Your task to perform on an android device: Open location settings Image 0: 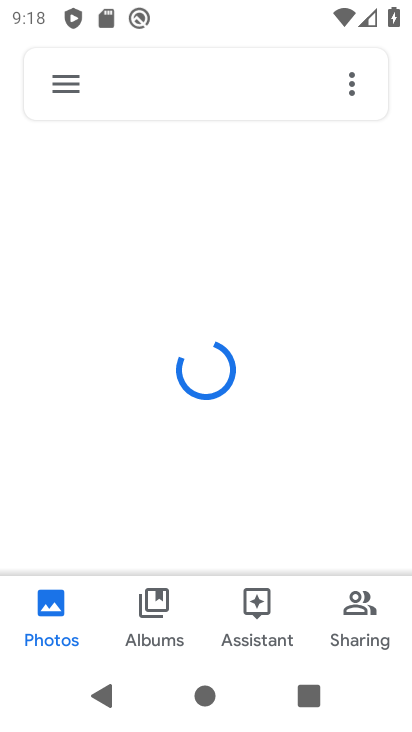
Step 0: press home button
Your task to perform on an android device: Open location settings Image 1: 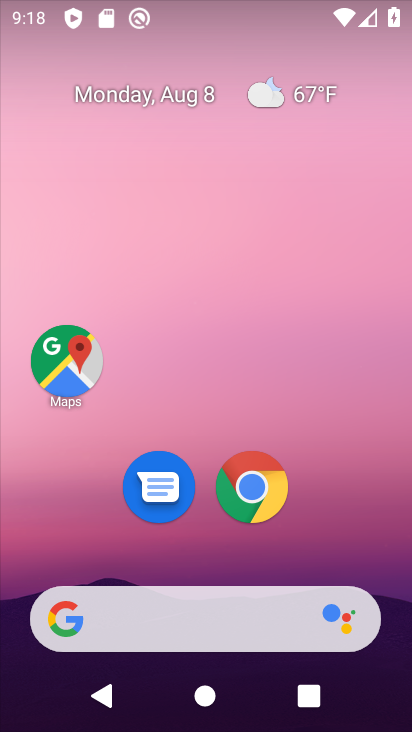
Step 1: drag from (215, 452) to (181, 78)
Your task to perform on an android device: Open location settings Image 2: 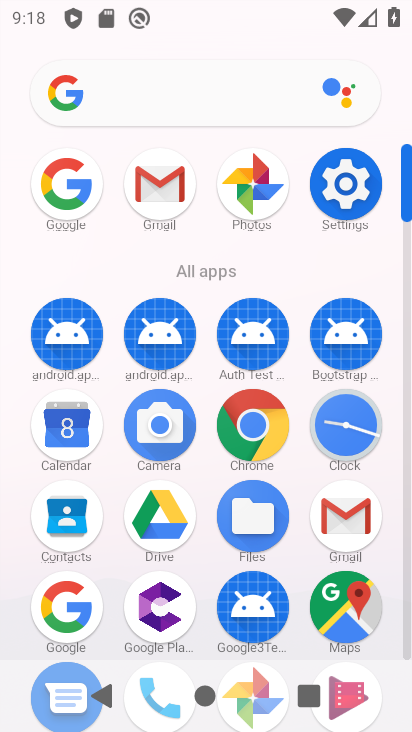
Step 2: click (346, 179)
Your task to perform on an android device: Open location settings Image 3: 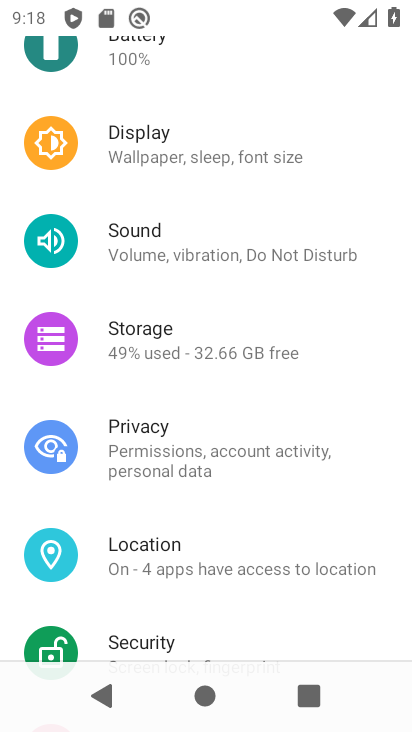
Step 3: click (205, 555)
Your task to perform on an android device: Open location settings Image 4: 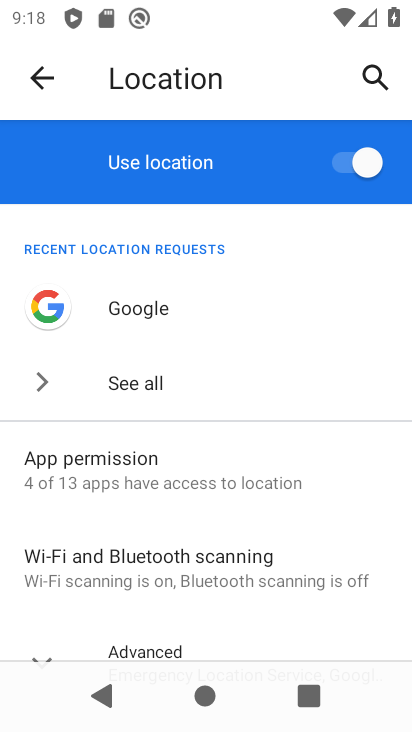
Step 4: task complete